Your task to perform on an android device: Go to eBay Image 0: 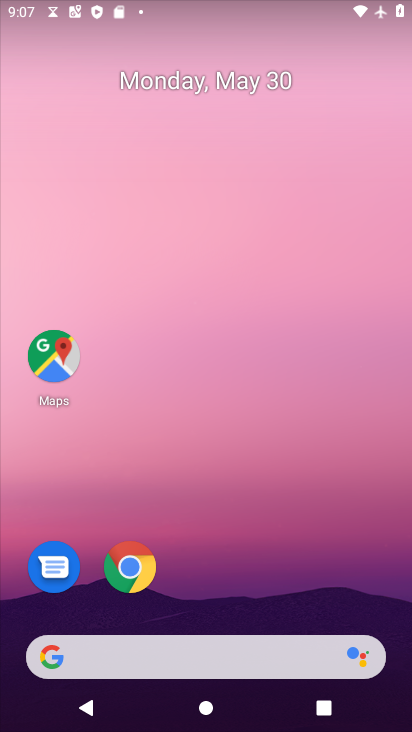
Step 0: drag from (240, 605) to (187, 166)
Your task to perform on an android device: Go to eBay Image 1: 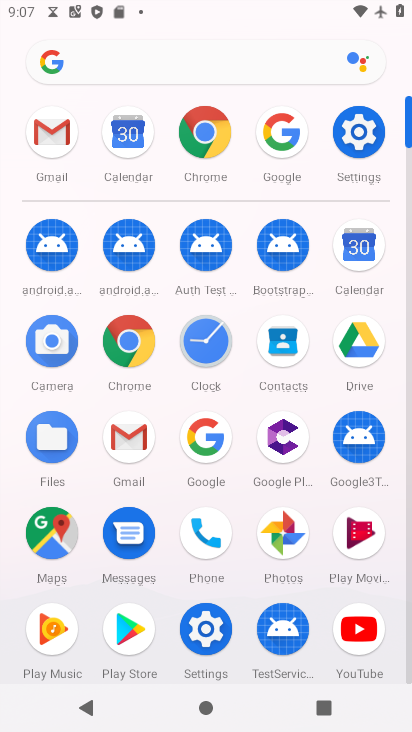
Step 1: click (206, 124)
Your task to perform on an android device: Go to eBay Image 2: 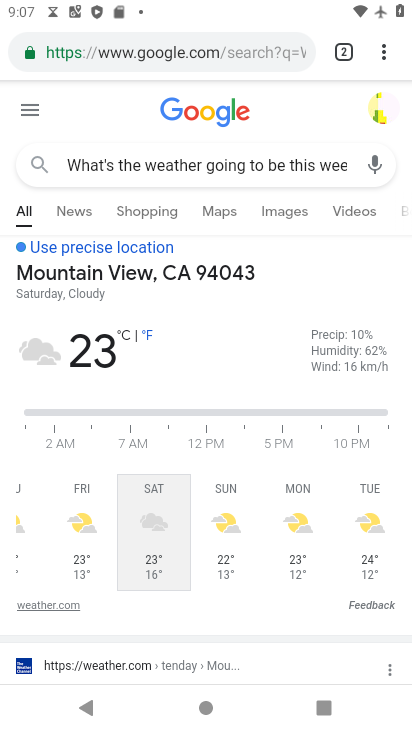
Step 2: click (339, 53)
Your task to perform on an android device: Go to eBay Image 3: 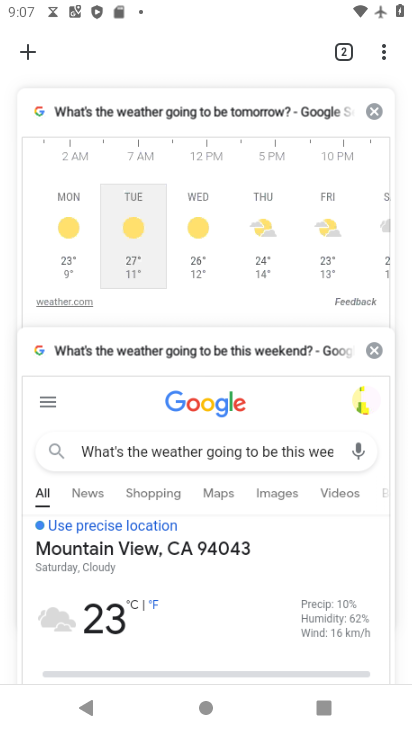
Step 3: click (37, 53)
Your task to perform on an android device: Go to eBay Image 4: 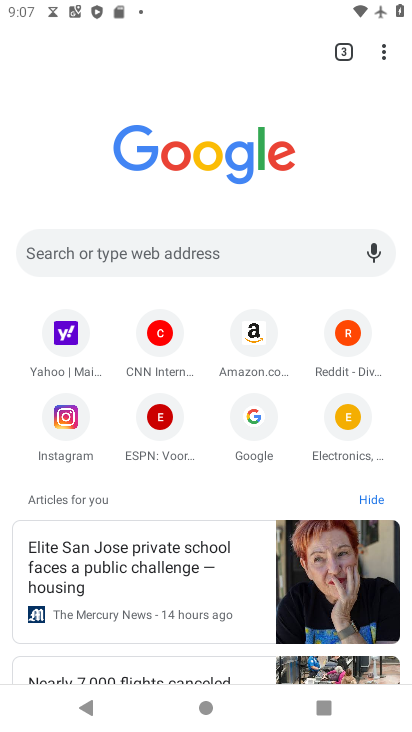
Step 4: click (204, 242)
Your task to perform on an android device: Go to eBay Image 5: 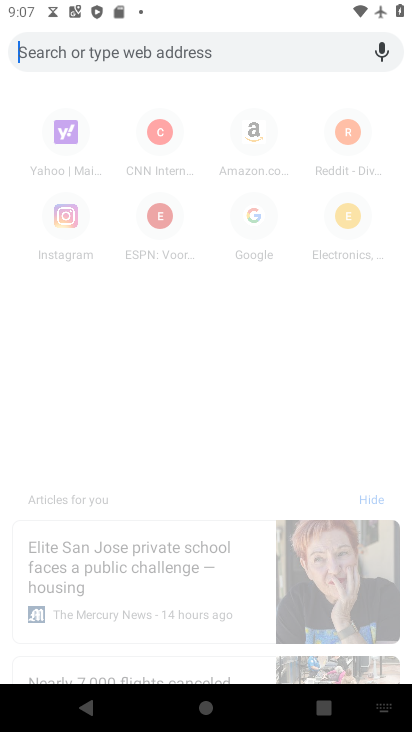
Step 5: type "eBay"
Your task to perform on an android device: Go to eBay Image 6: 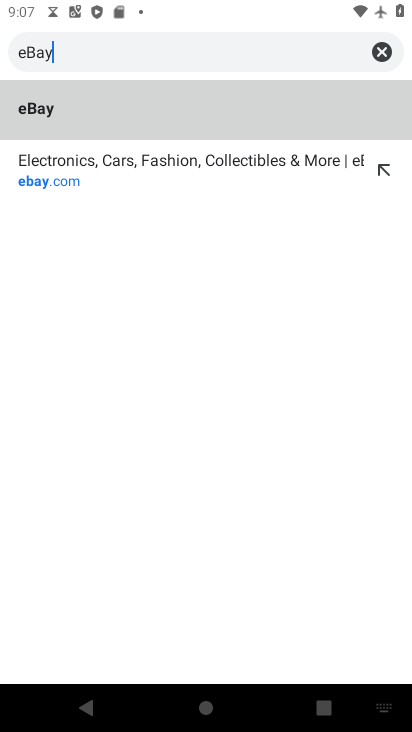
Step 6: click (64, 183)
Your task to perform on an android device: Go to eBay Image 7: 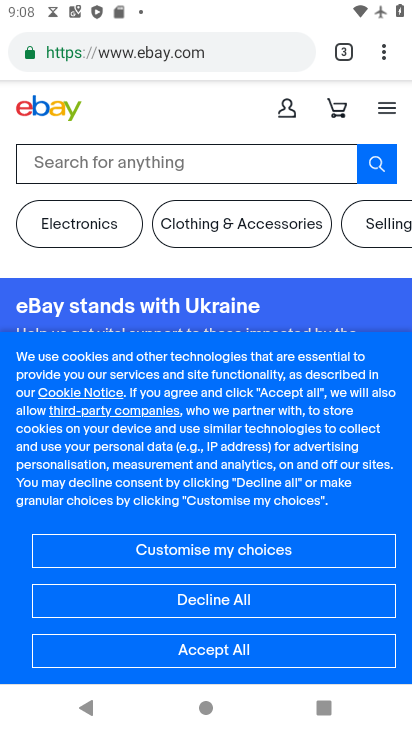
Step 7: task complete